Your task to perform on an android device: Set the phone to "Do not disturb". Image 0: 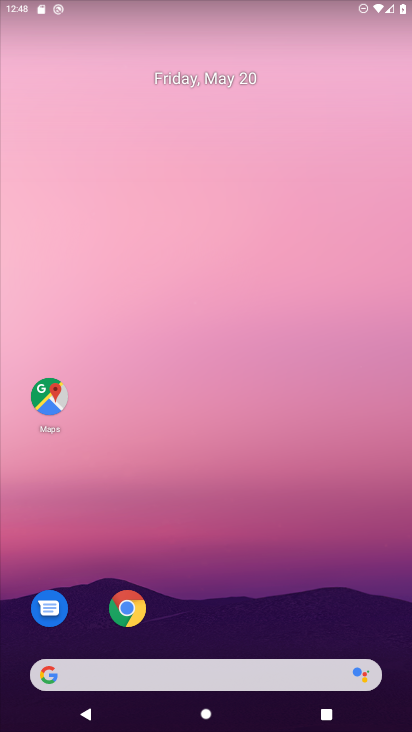
Step 0: drag from (157, 348) to (116, 662)
Your task to perform on an android device: Set the phone to "Do not disturb". Image 1: 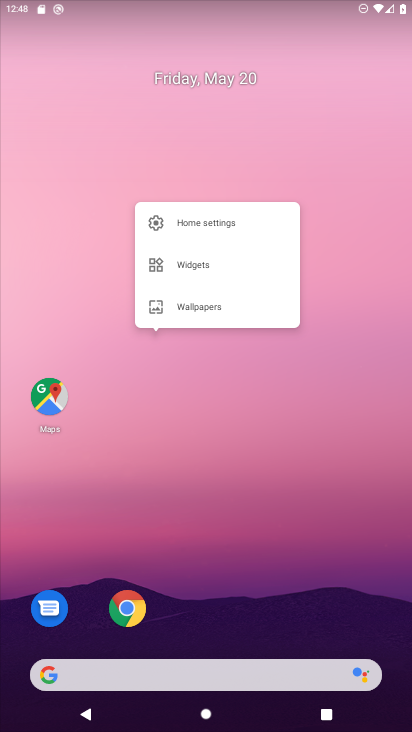
Step 1: click (251, 599)
Your task to perform on an android device: Set the phone to "Do not disturb". Image 2: 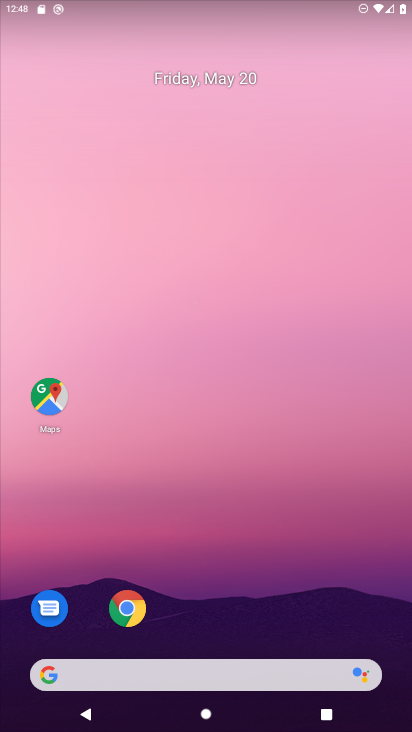
Step 2: click (161, 485)
Your task to perform on an android device: Set the phone to "Do not disturb". Image 3: 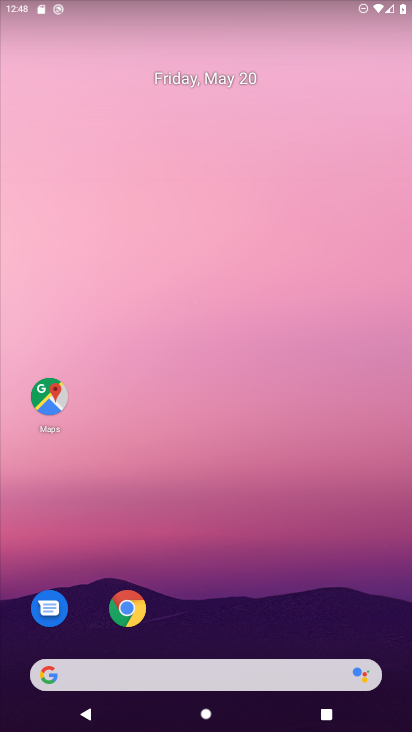
Step 3: click (201, 250)
Your task to perform on an android device: Set the phone to "Do not disturb". Image 4: 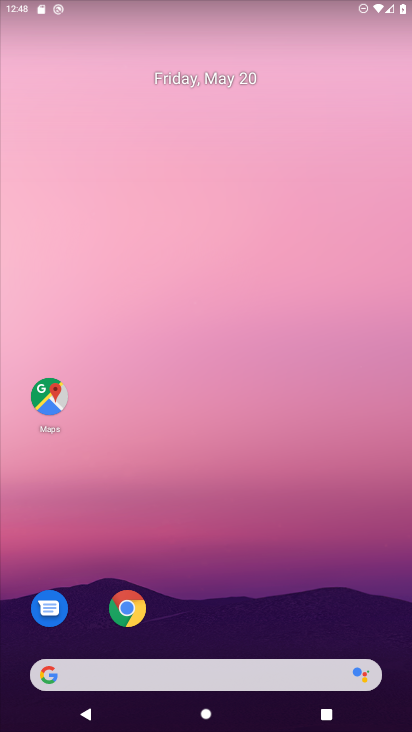
Step 4: click (83, 254)
Your task to perform on an android device: Set the phone to "Do not disturb". Image 5: 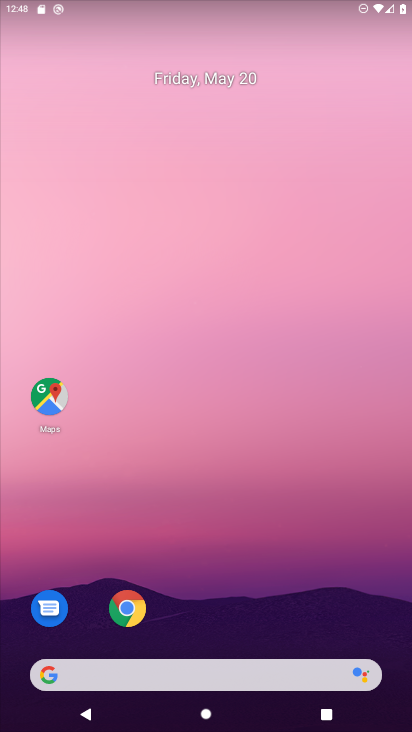
Step 5: task complete